Your task to perform on an android device: Open settings Image 0: 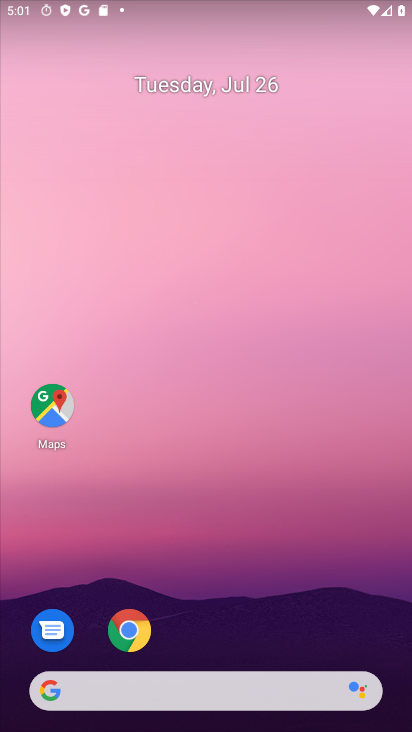
Step 0: drag from (250, 462) to (210, 37)
Your task to perform on an android device: Open settings Image 1: 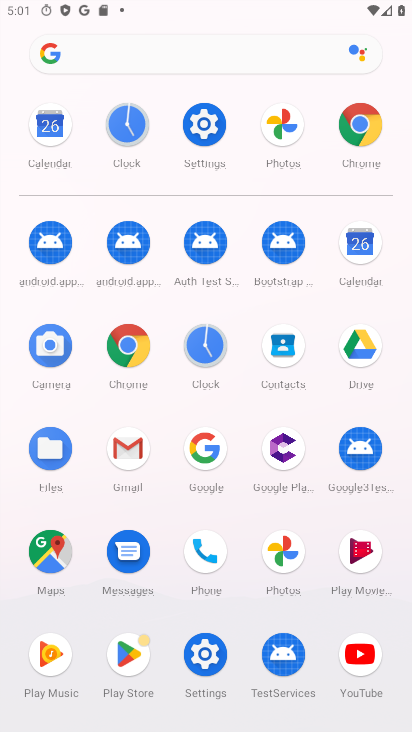
Step 1: click (219, 121)
Your task to perform on an android device: Open settings Image 2: 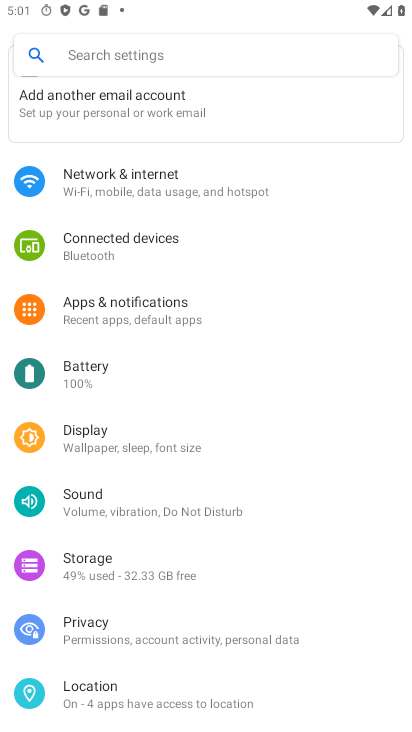
Step 2: task complete